Your task to perform on an android device: change timer sound Image 0: 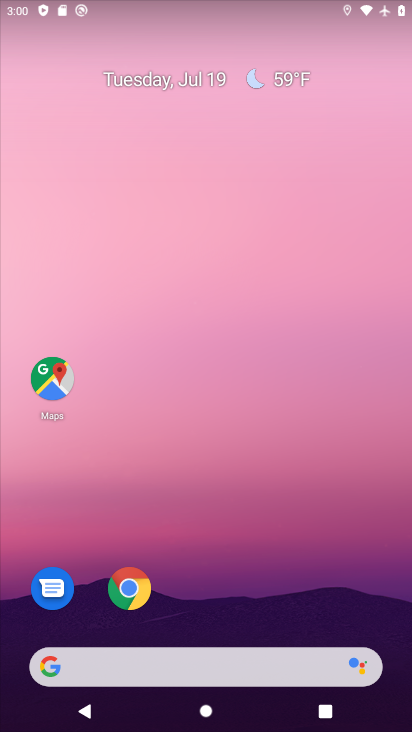
Step 0: click (233, 193)
Your task to perform on an android device: change timer sound Image 1: 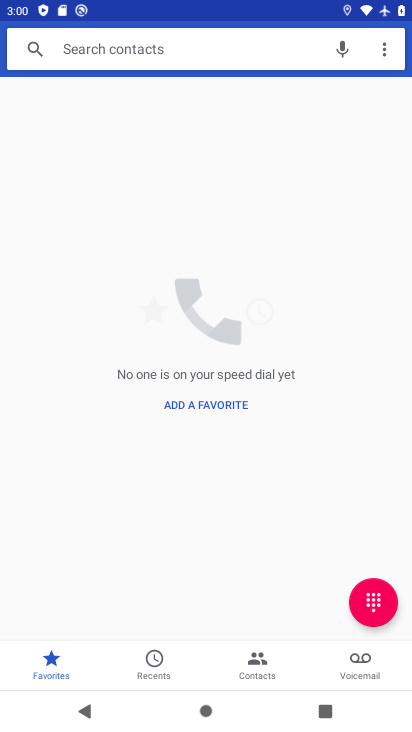
Step 1: press home button
Your task to perform on an android device: change timer sound Image 2: 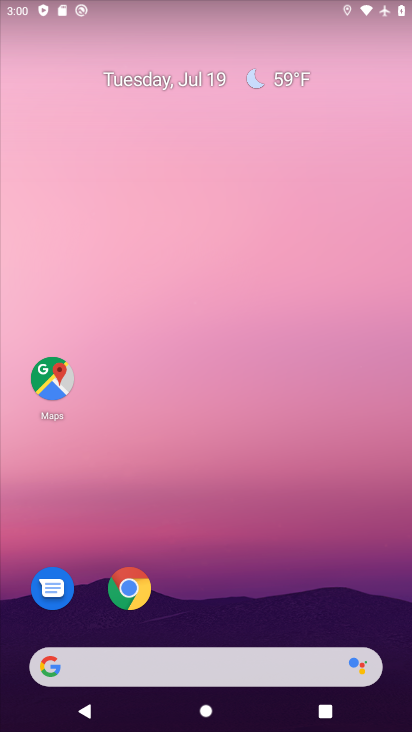
Step 2: drag from (258, 638) to (329, 1)
Your task to perform on an android device: change timer sound Image 3: 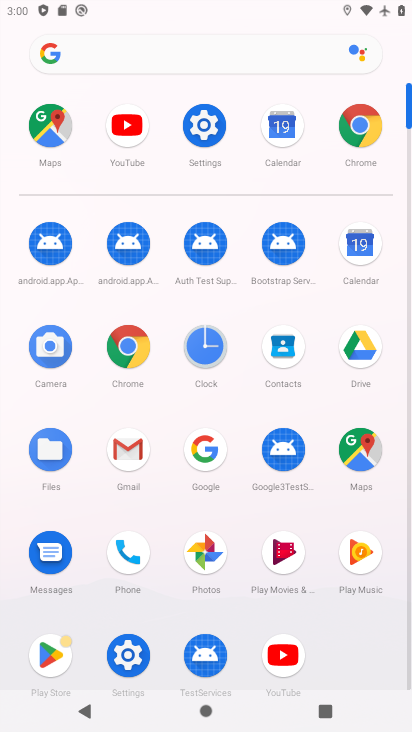
Step 3: click (211, 350)
Your task to perform on an android device: change timer sound Image 4: 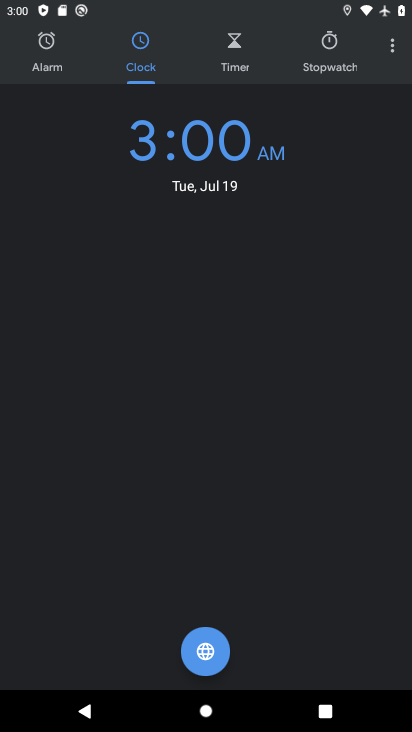
Step 4: click (396, 49)
Your task to perform on an android device: change timer sound Image 5: 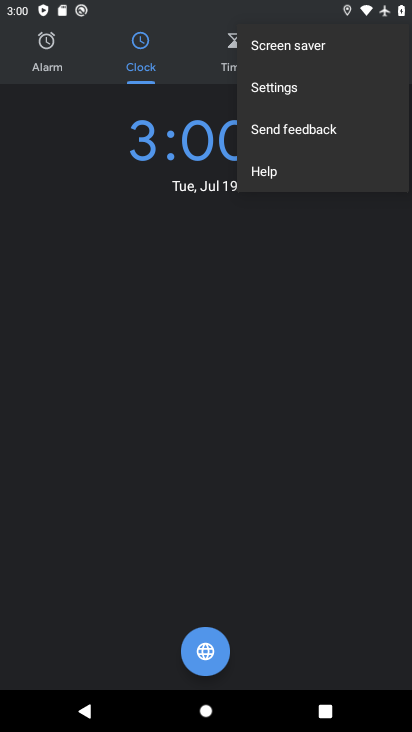
Step 5: click (290, 88)
Your task to perform on an android device: change timer sound Image 6: 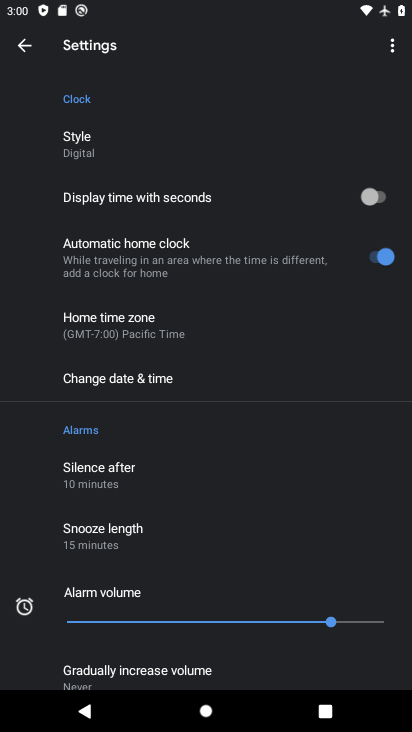
Step 6: drag from (234, 547) to (298, 7)
Your task to perform on an android device: change timer sound Image 7: 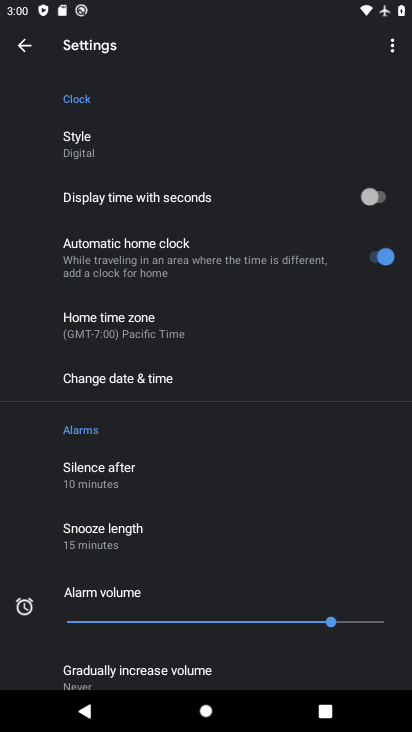
Step 7: drag from (279, 423) to (350, 7)
Your task to perform on an android device: change timer sound Image 8: 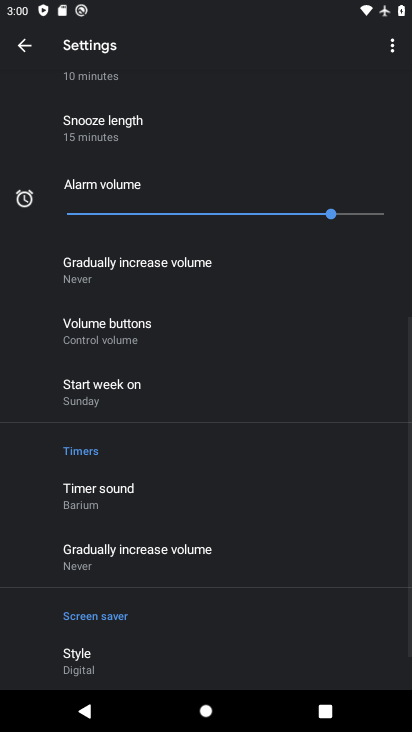
Step 8: drag from (294, 490) to (344, 15)
Your task to perform on an android device: change timer sound Image 9: 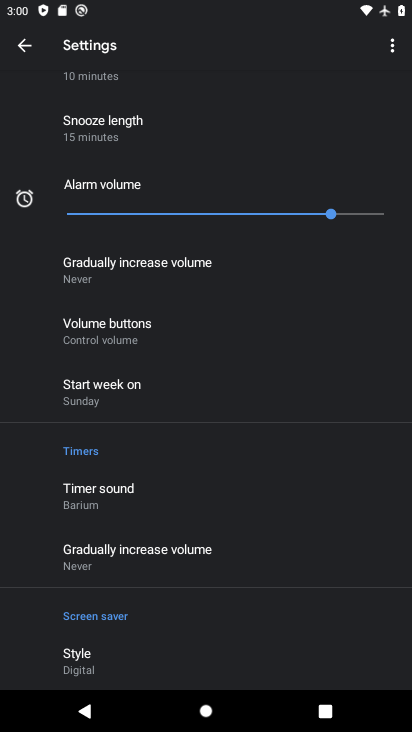
Step 9: drag from (313, 625) to (372, 0)
Your task to perform on an android device: change timer sound Image 10: 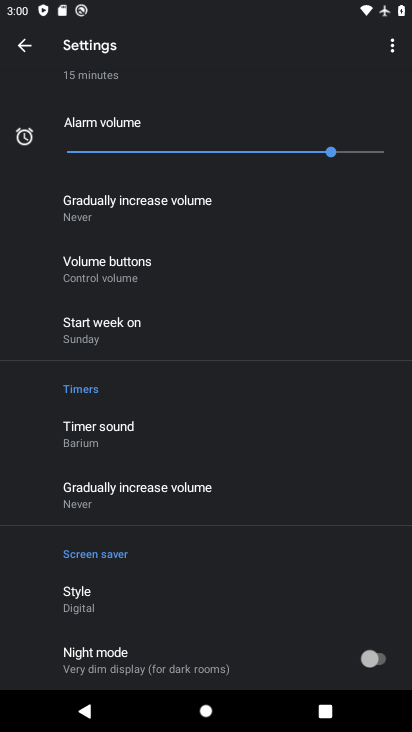
Step 10: click (90, 432)
Your task to perform on an android device: change timer sound Image 11: 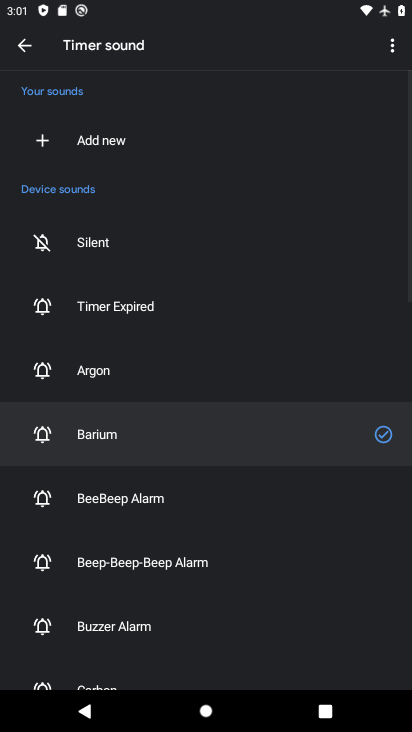
Step 11: click (102, 571)
Your task to perform on an android device: change timer sound Image 12: 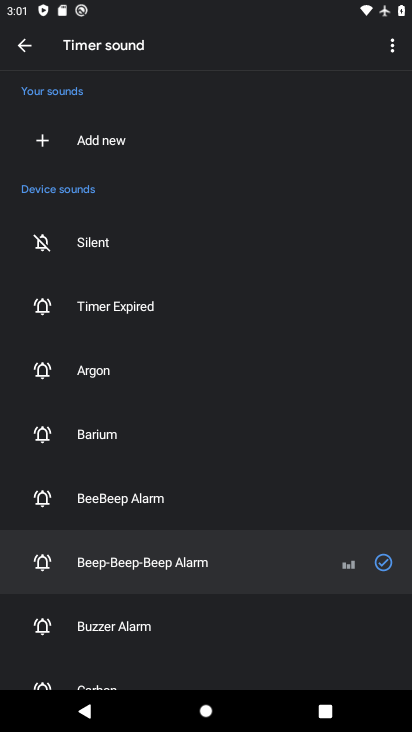
Step 12: task complete